Your task to perform on an android device: open wifi settings Image 0: 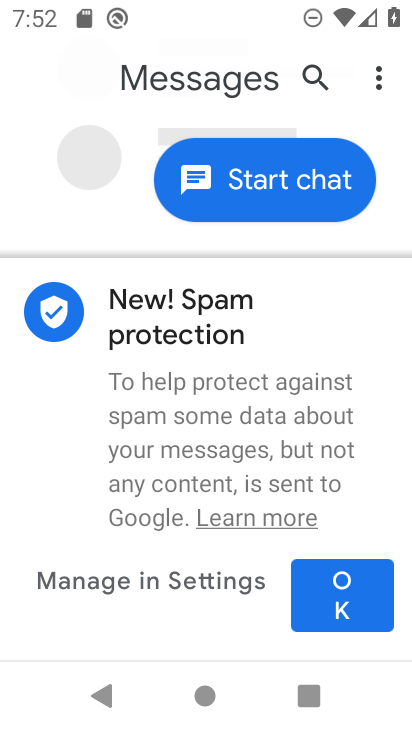
Step 0: press home button
Your task to perform on an android device: open wifi settings Image 1: 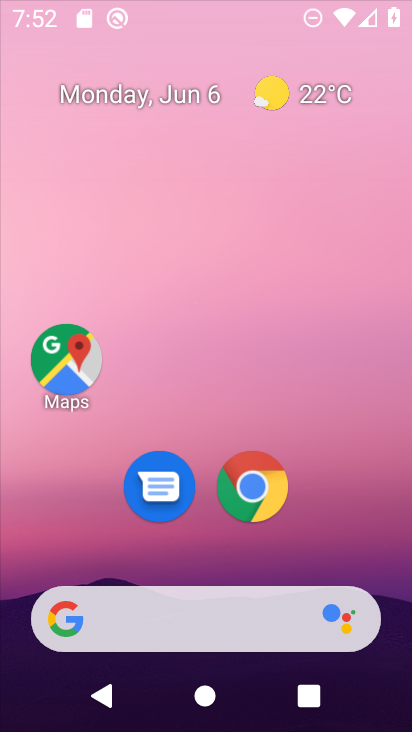
Step 1: drag from (395, 641) to (264, 68)
Your task to perform on an android device: open wifi settings Image 2: 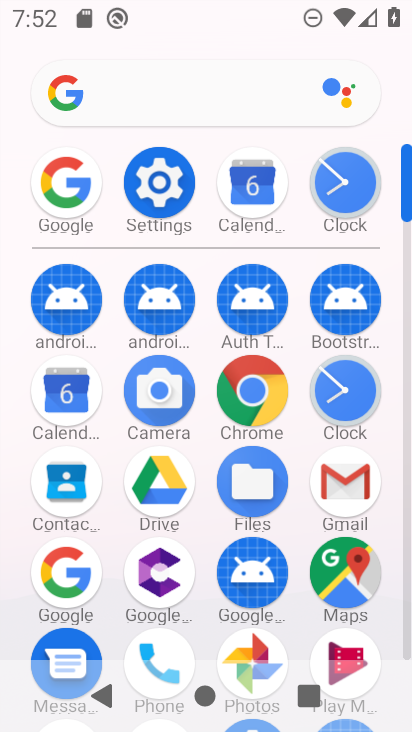
Step 2: click (147, 185)
Your task to perform on an android device: open wifi settings Image 3: 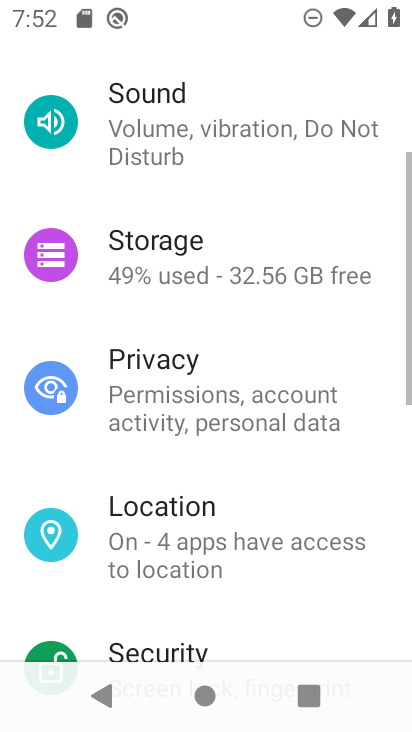
Step 3: drag from (187, 152) to (205, 616)
Your task to perform on an android device: open wifi settings Image 4: 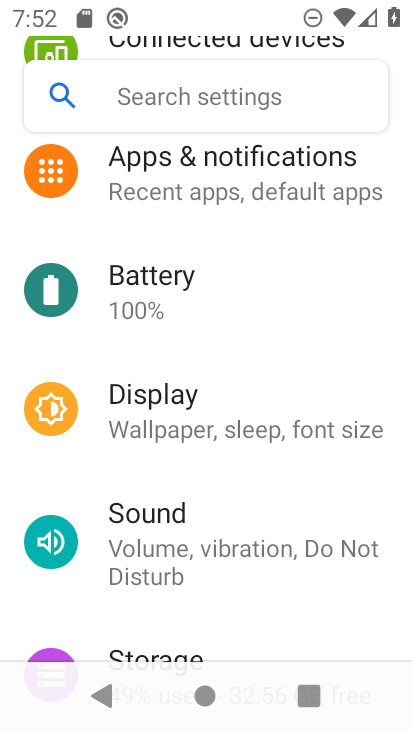
Step 4: drag from (149, 203) to (204, 696)
Your task to perform on an android device: open wifi settings Image 5: 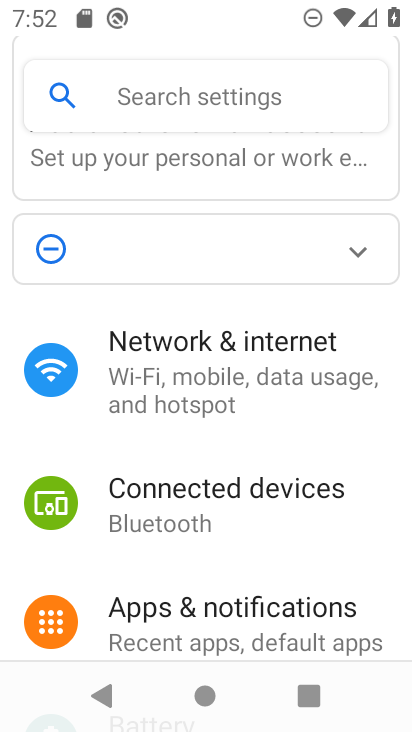
Step 5: click (165, 388)
Your task to perform on an android device: open wifi settings Image 6: 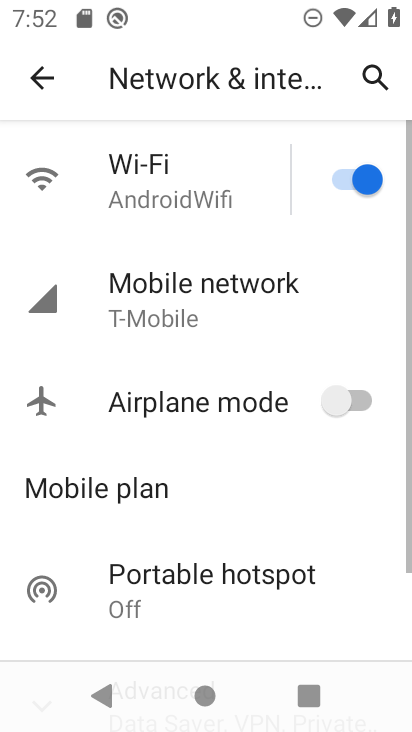
Step 6: click (182, 194)
Your task to perform on an android device: open wifi settings Image 7: 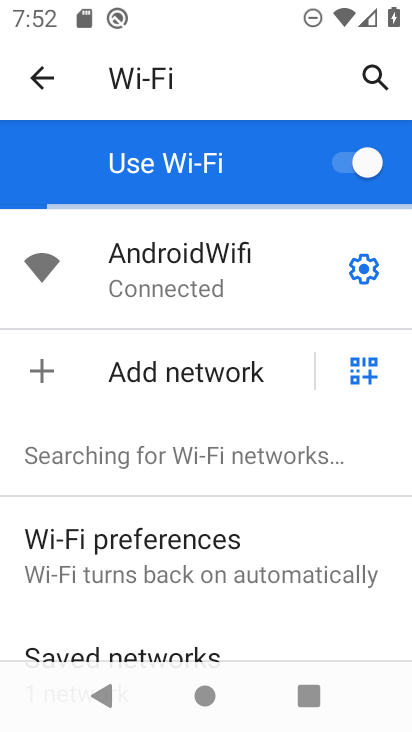
Step 7: task complete